Your task to perform on an android device: Open Reddit.com Image 0: 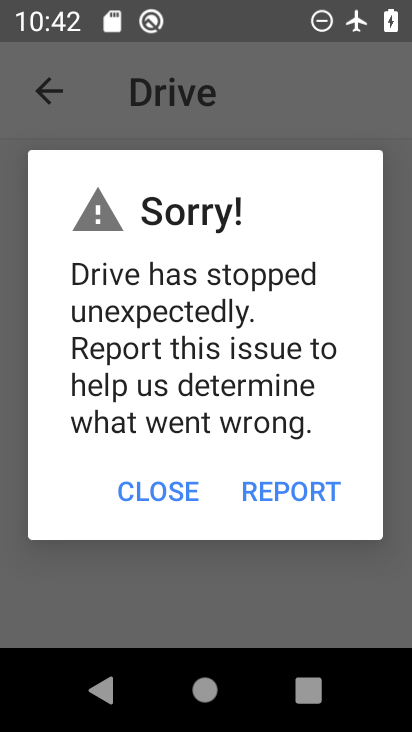
Step 0: press home button
Your task to perform on an android device: Open Reddit.com Image 1: 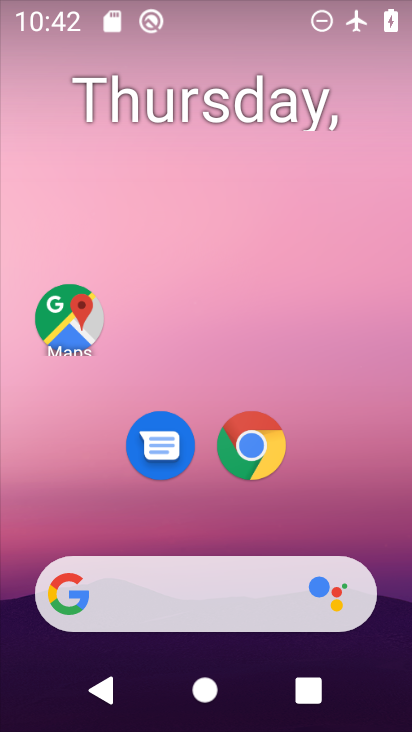
Step 1: click (254, 424)
Your task to perform on an android device: Open Reddit.com Image 2: 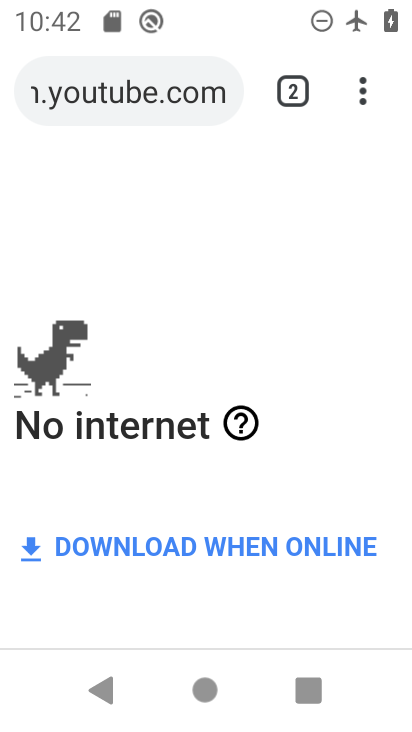
Step 2: click (300, 103)
Your task to perform on an android device: Open Reddit.com Image 3: 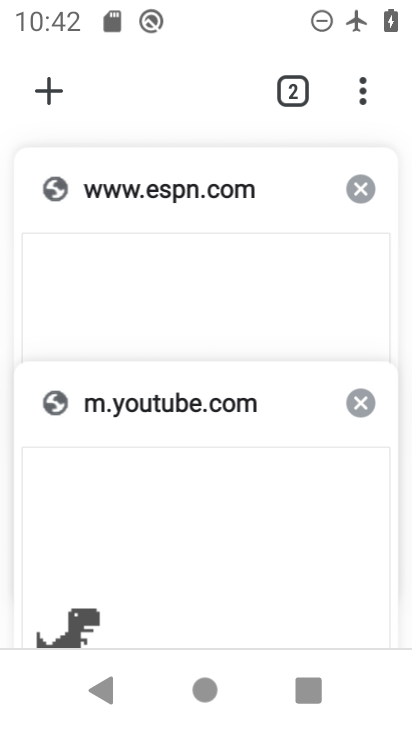
Step 3: click (40, 88)
Your task to perform on an android device: Open Reddit.com Image 4: 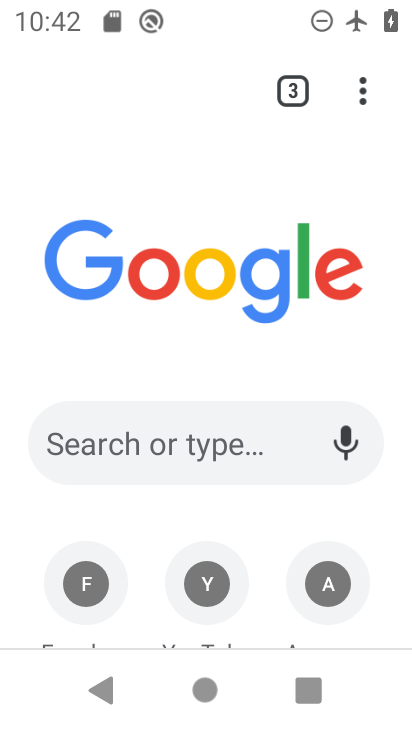
Step 4: click (185, 428)
Your task to perform on an android device: Open Reddit.com Image 5: 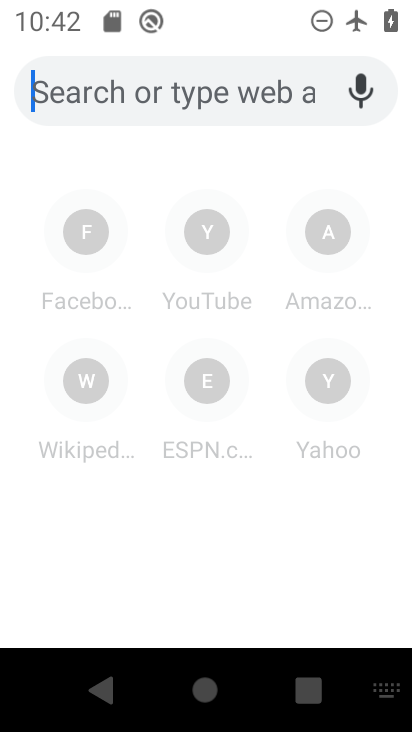
Step 5: type "reddit"
Your task to perform on an android device: Open Reddit.com Image 6: 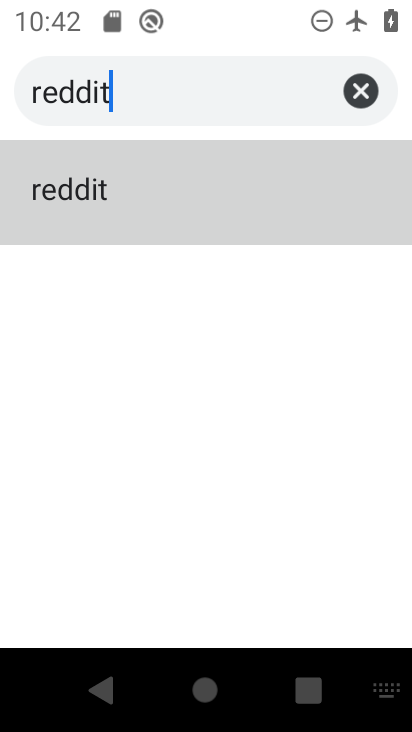
Step 6: click (132, 204)
Your task to perform on an android device: Open Reddit.com Image 7: 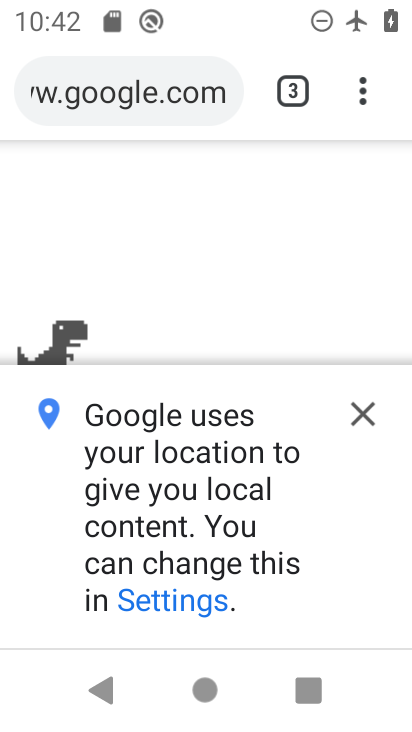
Step 7: task complete